Your task to perform on an android device: Go to privacy settings Image 0: 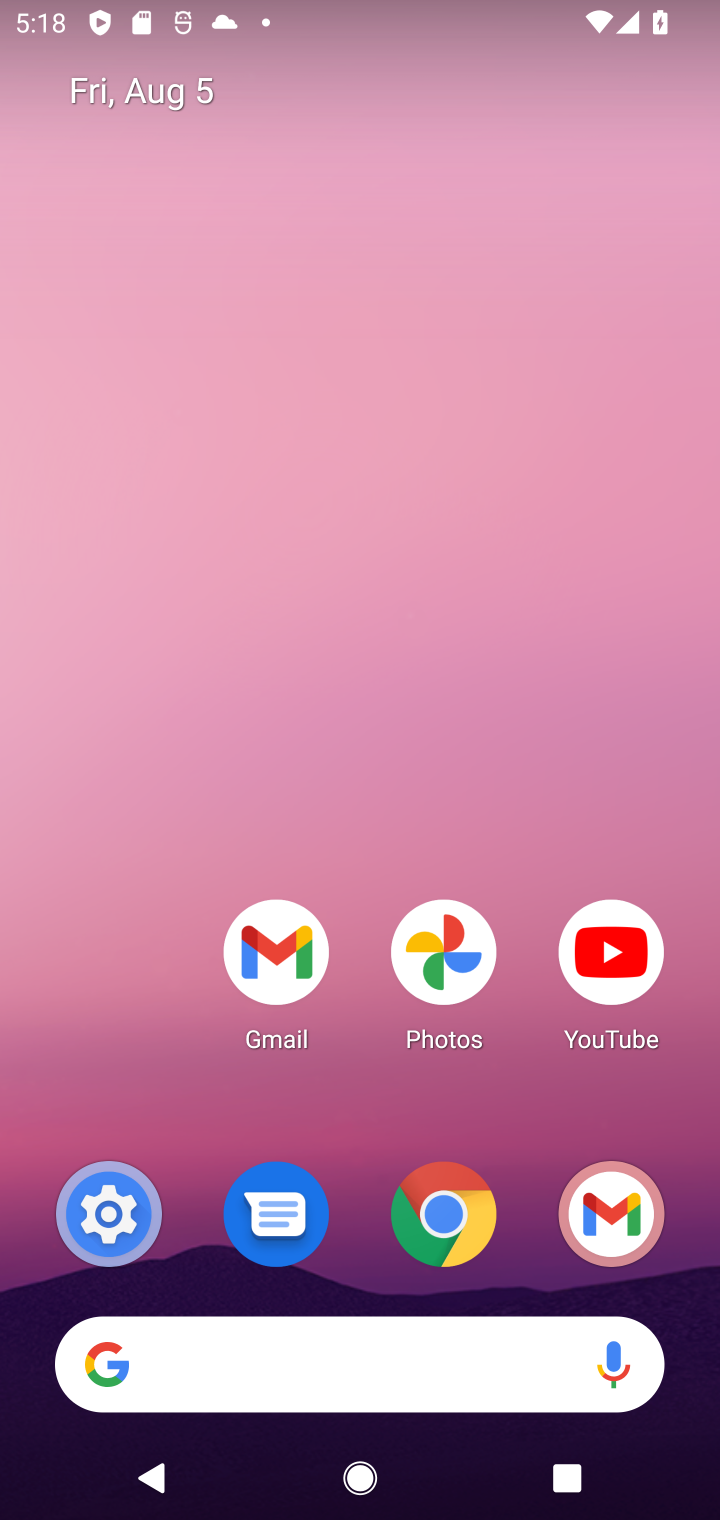
Step 0: click (115, 1203)
Your task to perform on an android device: Go to privacy settings Image 1: 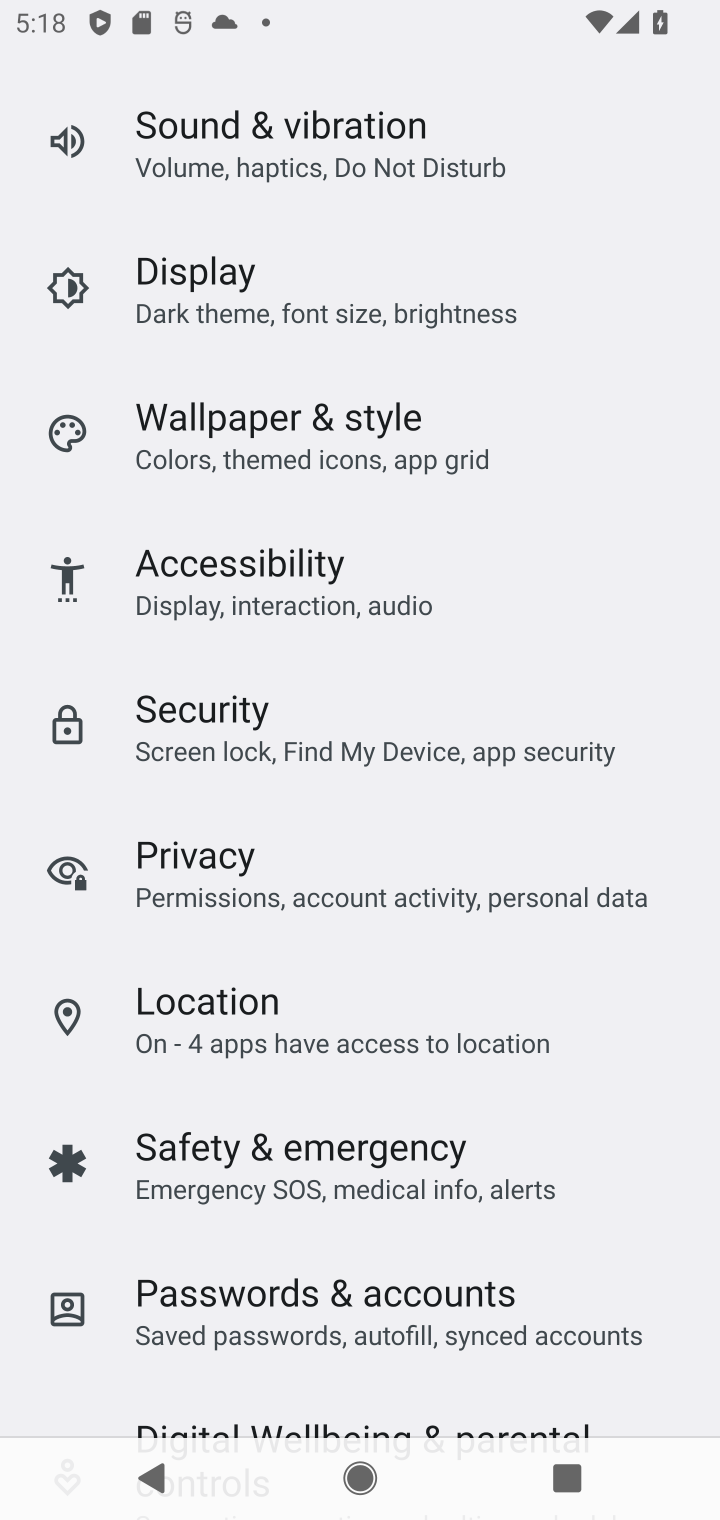
Step 1: click (432, 876)
Your task to perform on an android device: Go to privacy settings Image 2: 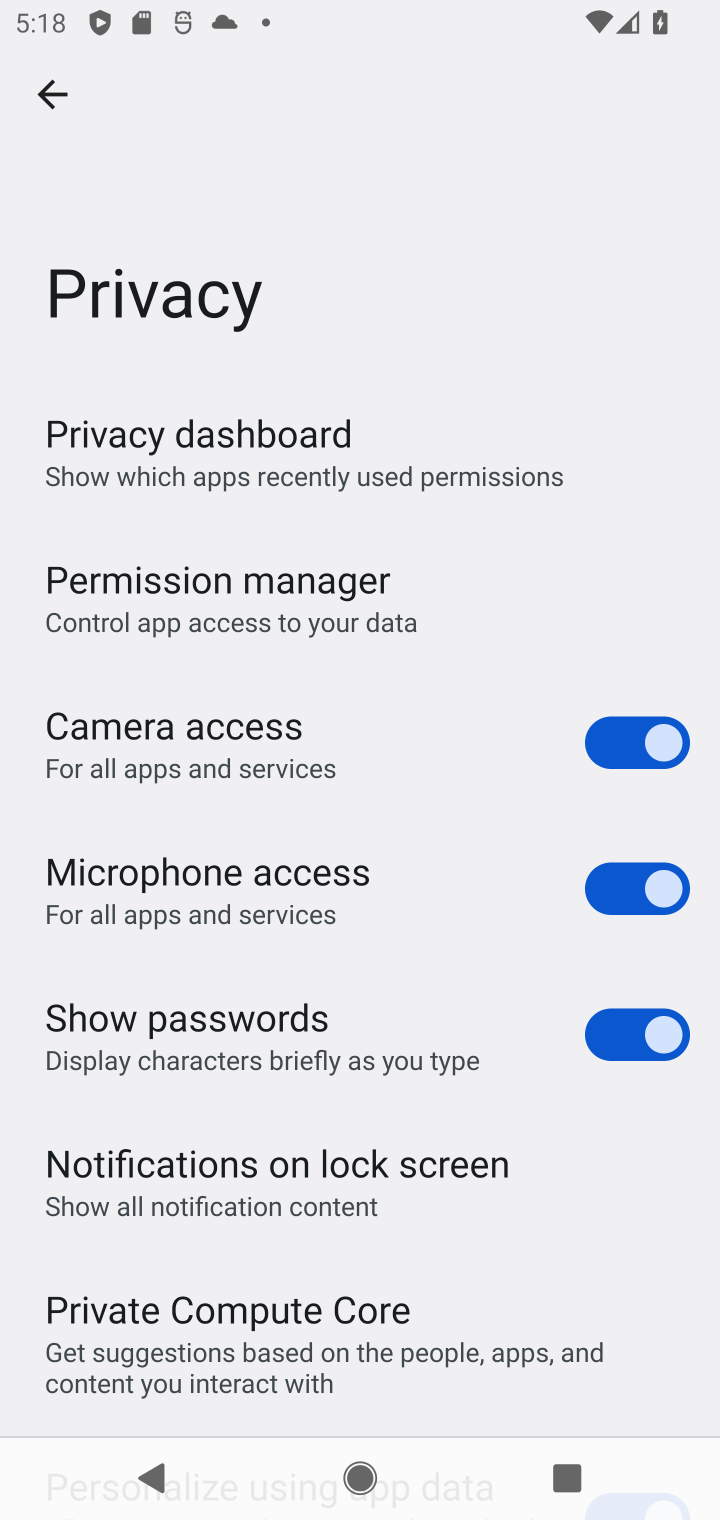
Step 2: task complete